Your task to perform on an android device: Open Google Chrome and click the shortcut for Amazon.com Image 0: 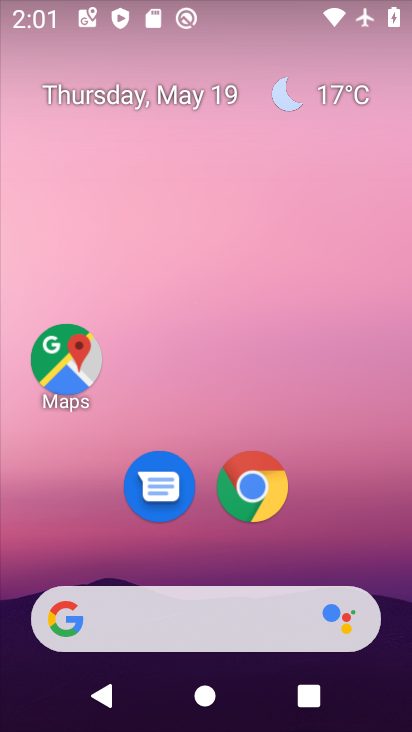
Step 0: click (256, 479)
Your task to perform on an android device: Open Google Chrome and click the shortcut for Amazon.com Image 1: 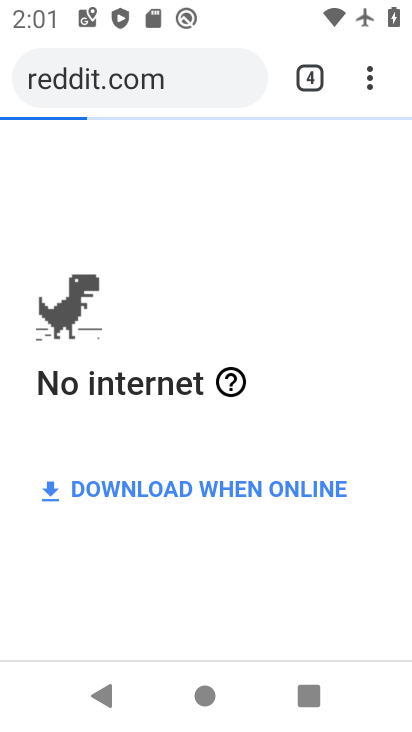
Step 1: click (312, 70)
Your task to perform on an android device: Open Google Chrome and click the shortcut for Amazon.com Image 2: 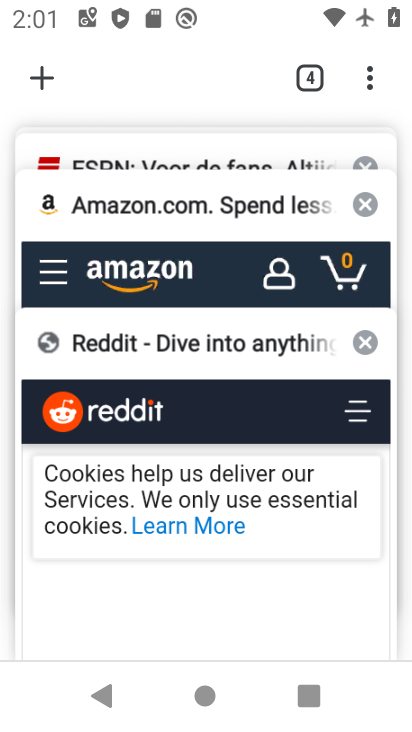
Step 2: click (176, 208)
Your task to perform on an android device: Open Google Chrome and click the shortcut for Amazon.com Image 3: 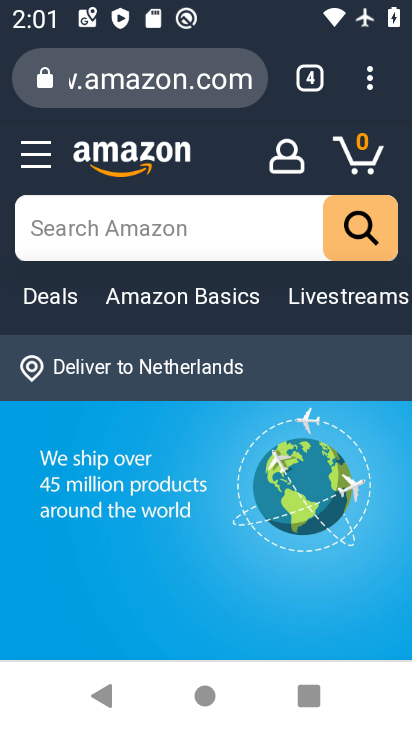
Step 3: task complete